Your task to perform on an android device: toggle airplane mode Image 0: 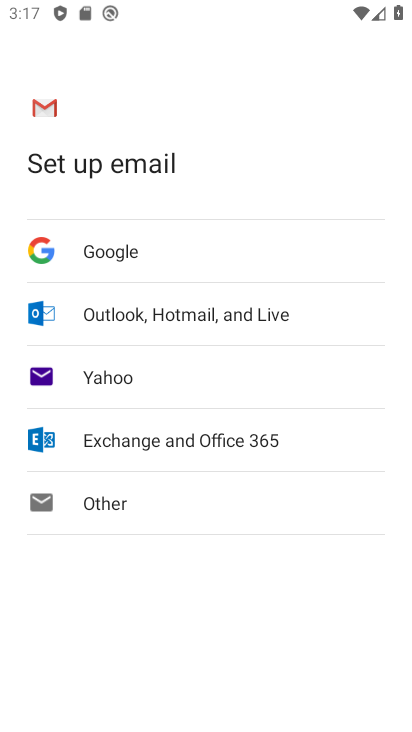
Step 0: press home button
Your task to perform on an android device: toggle airplane mode Image 1: 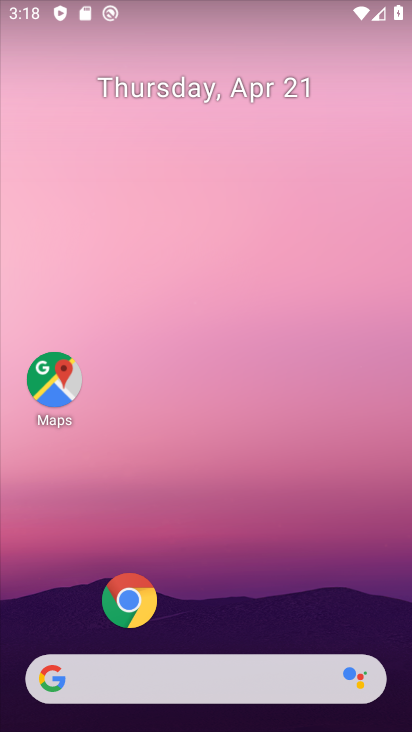
Step 1: drag from (206, 633) to (250, 296)
Your task to perform on an android device: toggle airplane mode Image 2: 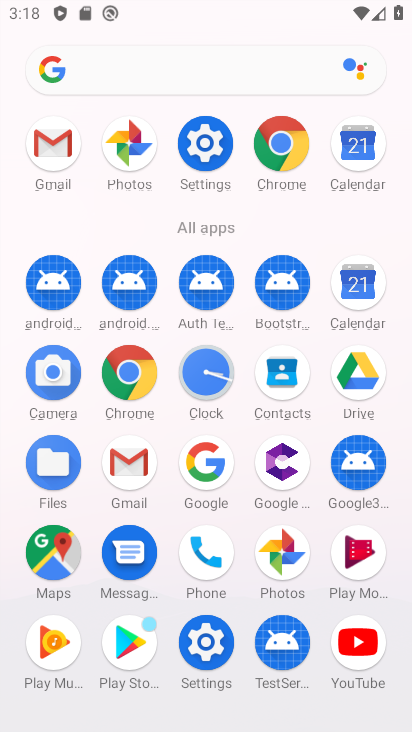
Step 2: click (217, 148)
Your task to perform on an android device: toggle airplane mode Image 3: 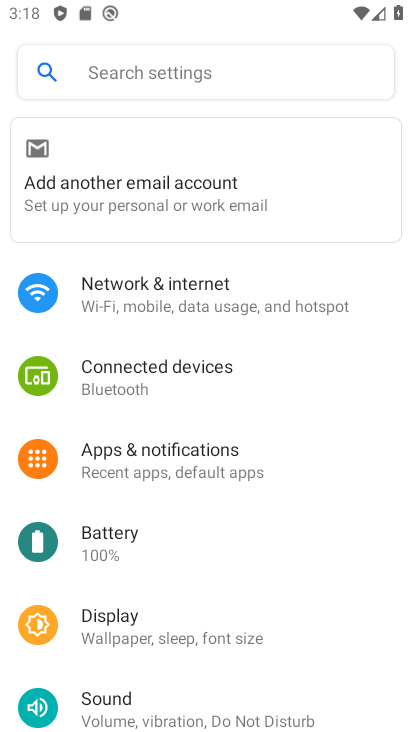
Step 3: click (168, 289)
Your task to perform on an android device: toggle airplane mode Image 4: 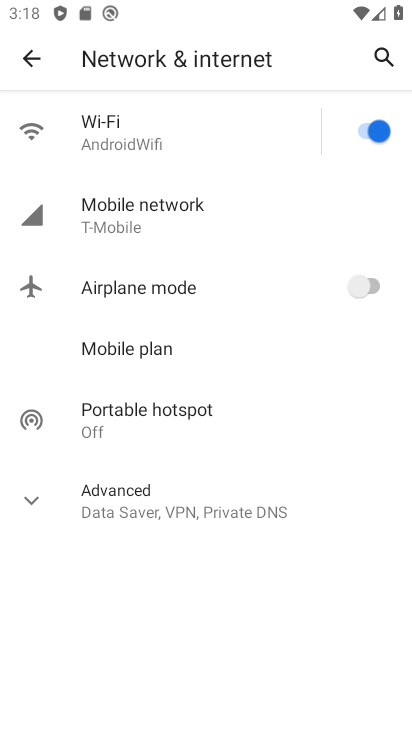
Step 4: click (358, 292)
Your task to perform on an android device: toggle airplane mode Image 5: 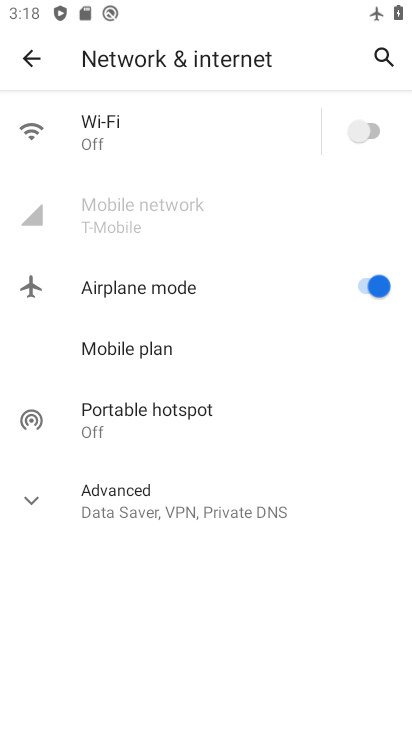
Step 5: task complete